Your task to perform on an android device: check google app version Image 0: 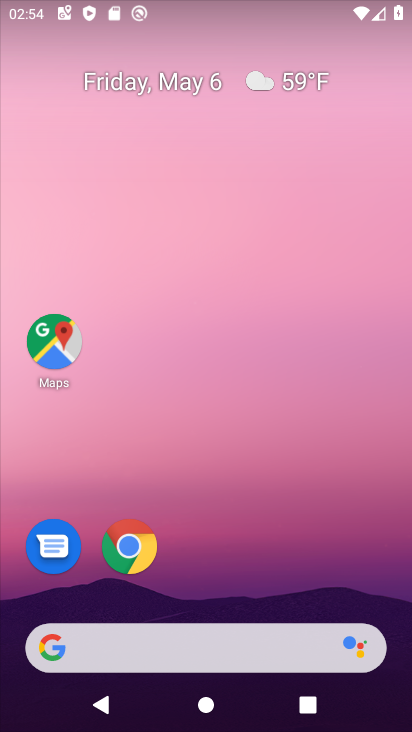
Step 0: drag from (218, 564) to (216, 73)
Your task to perform on an android device: check google app version Image 1: 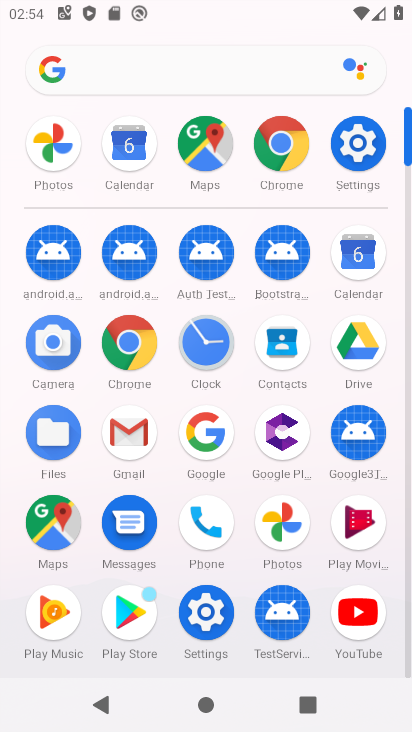
Step 1: click (204, 441)
Your task to perform on an android device: check google app version Image 2: 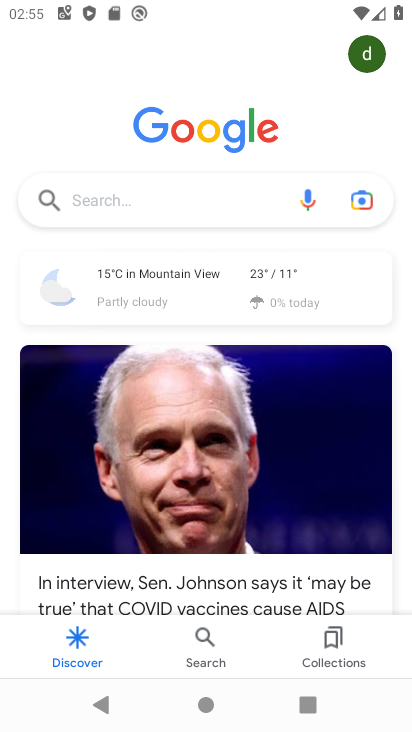
Step 2: click (364, 53)
Your task to perform on an android device: check google app version Image 3: 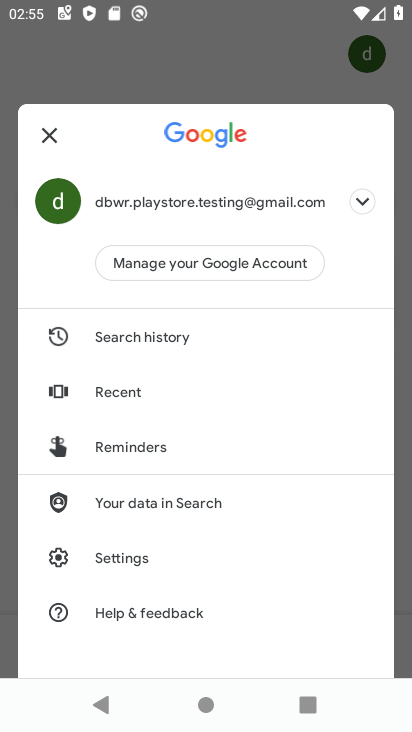
Step 3: click (54, 130)
Your task to perform on an android device: check google app version Image 4: 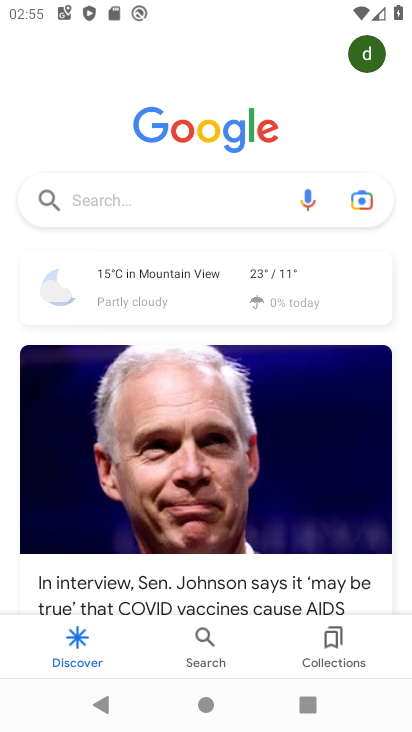
Step 4: click (353, 56)
Your task to perform on an android device: check google app version Image 5: 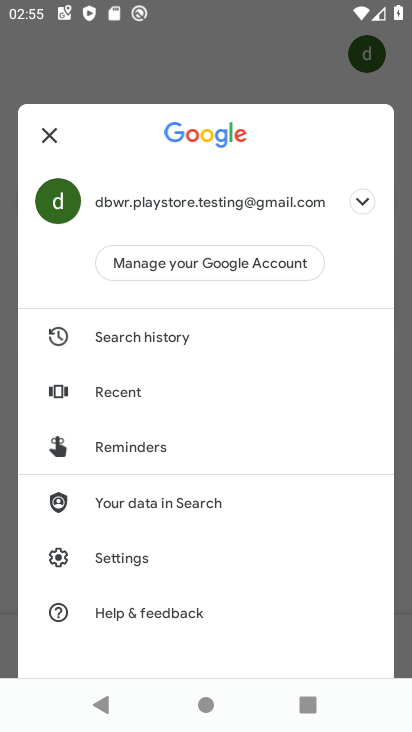
Step 5: click (163, 560)
Your task to perform on an android device: check google app version Image 6: 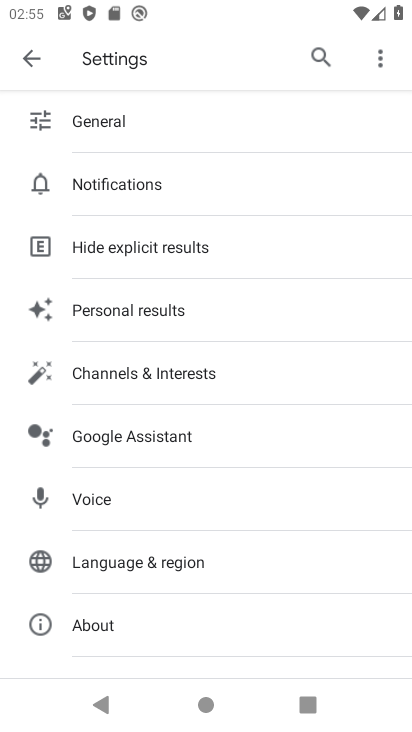
Step 6: click (202, 623)
Your task to perform on an android device: check google app version Image 7: 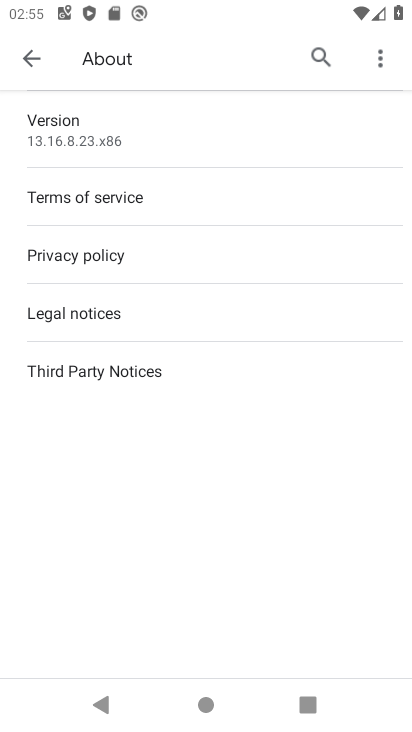
Step 7: click (123, 144)
Your task to perform on an android device: check google app version Image 8: 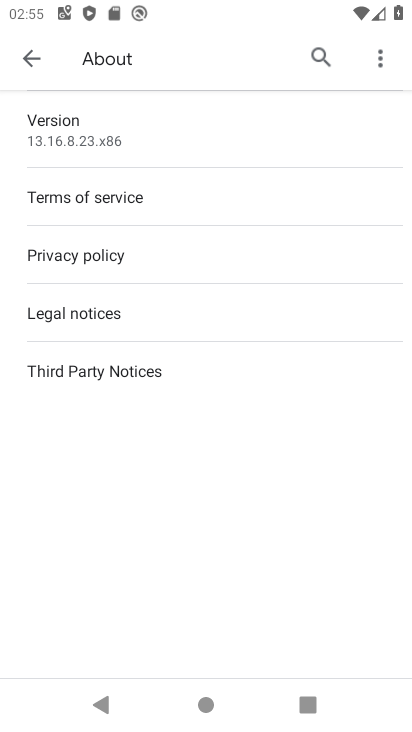
Step 8: task complete